Your task to perform on an android device: turn off notifications settings in the gmail app Image 0: 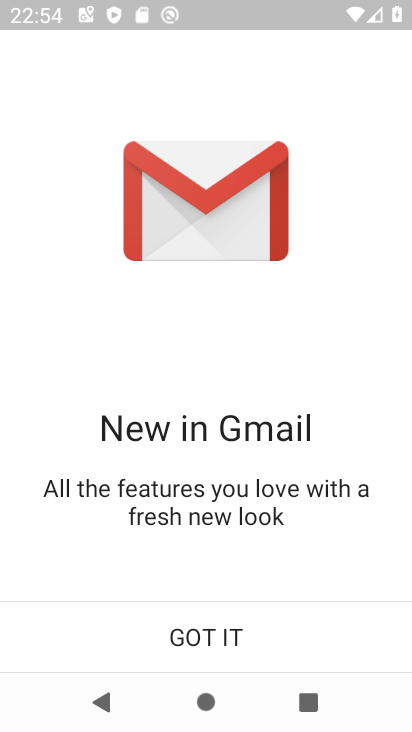
Step 0: click (229, 646)
Your task to perform on an android device: turn off notifications settings in the gmail app Image 1: 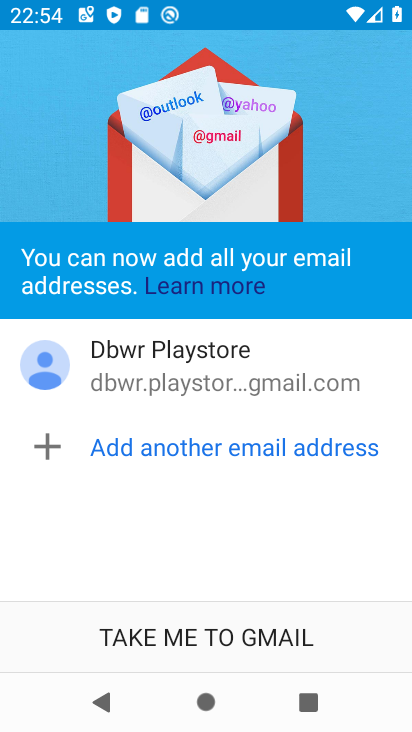
Step 1: click (97, 627)
Your task to perform on an android device: turn off notifications settings in the gmail app Image 2: 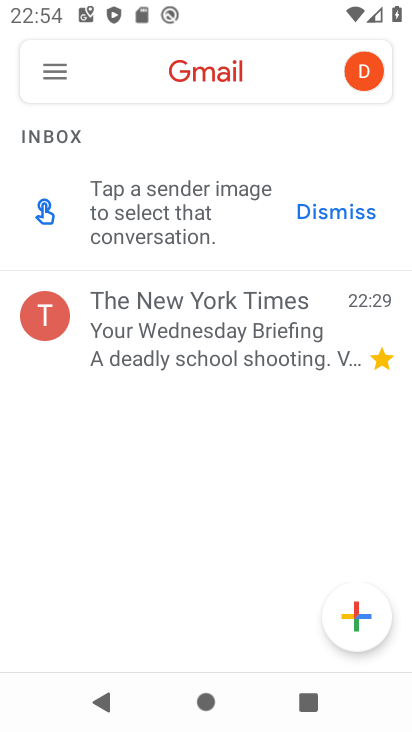
Step 2: click (48, 65)
Your task to perform on an android device: turn off notifications settings in the gmail app Image 3: 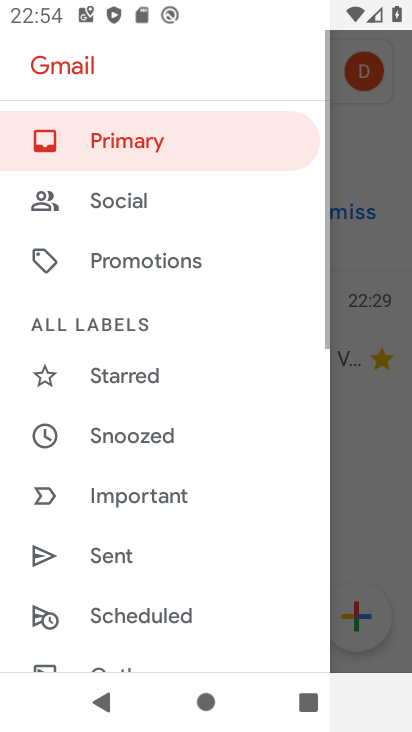
Step 3: drag from (150, 624) to (208, 209)
Your task to perform on an android device: turn off notifications settings in the gmail app Image 4: 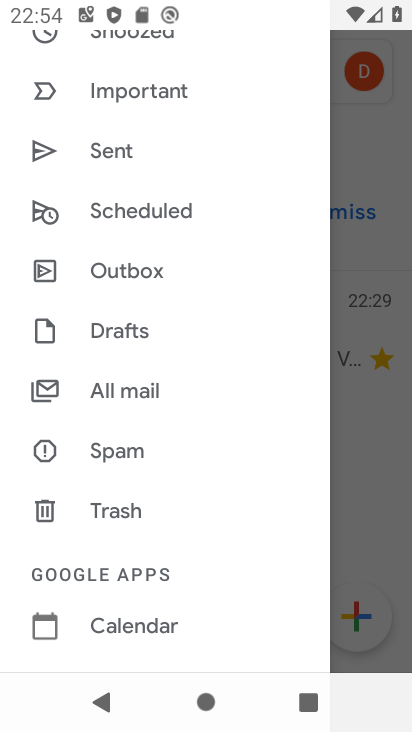
Step 4: drag from (124, 633) to (180, 225)
Your task to perform on an android device: turn off notifications settings in the gmail app Image 5: 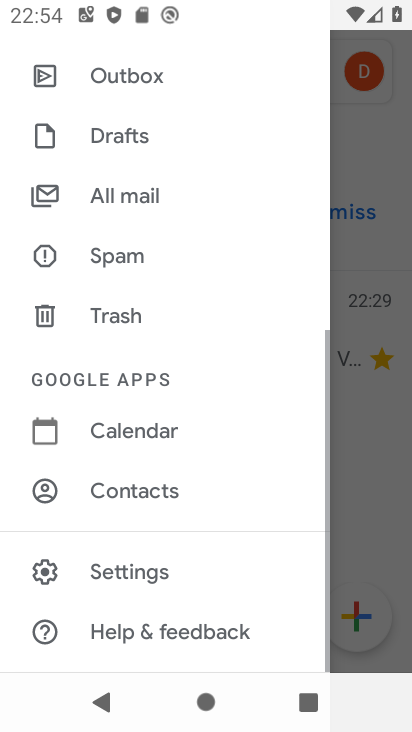
Step 5: click (145, 571)
Your task to perform on an android device: turn off notifications settings in the gmail app Image 6: 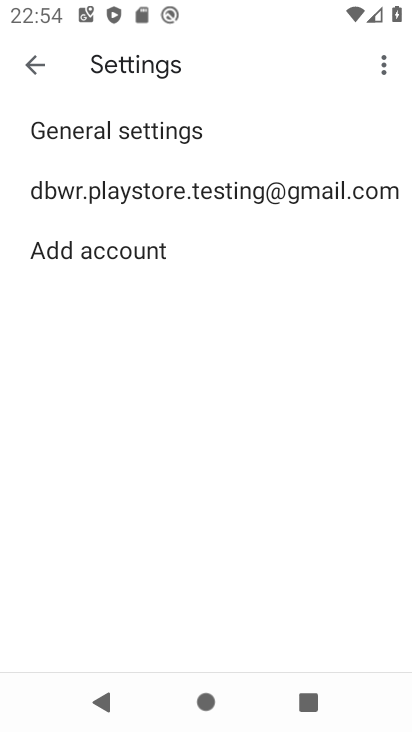
Step 6: click (177, 187)
Your task to perform on an android device: turn off notifications settings in the gmail app Image 7: 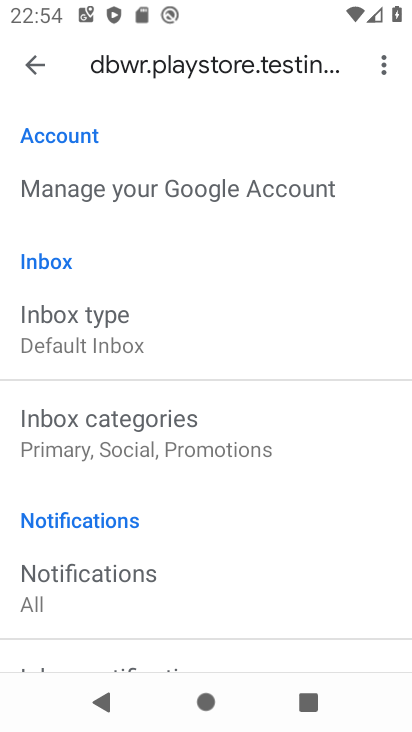
Step 7: drag from (108, 626) to (152, 298)
Your task to perform on an android device: turn off notifications settings in the gmail app Image 8: 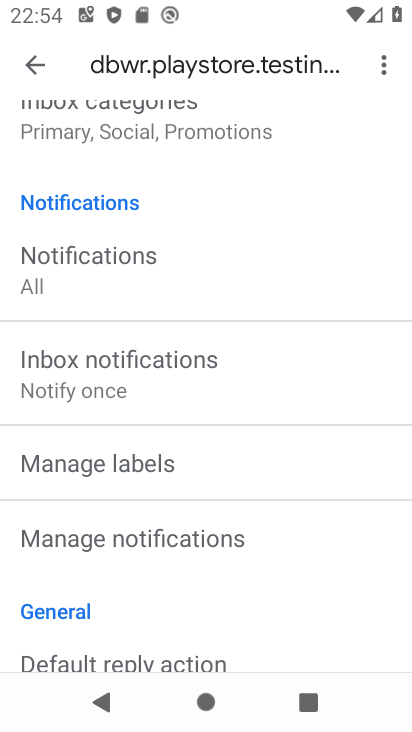
Step 8: click (121, 540)
Your task to perform on an android device: turn off notifications settings in the gmail app Image 9: 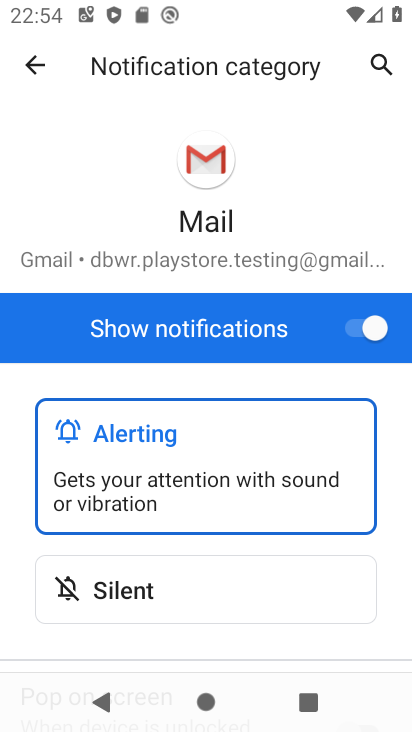
Step 9: click (356, 314)
Your task to perform on an android device: turn off notifications settings in the gmail app Image 10: 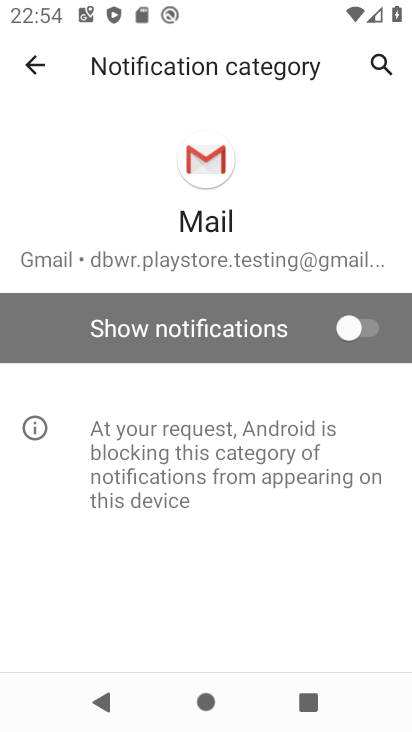
Step 10: task complete